Your task to perform on an android device: open app "Gmail" Image 0: 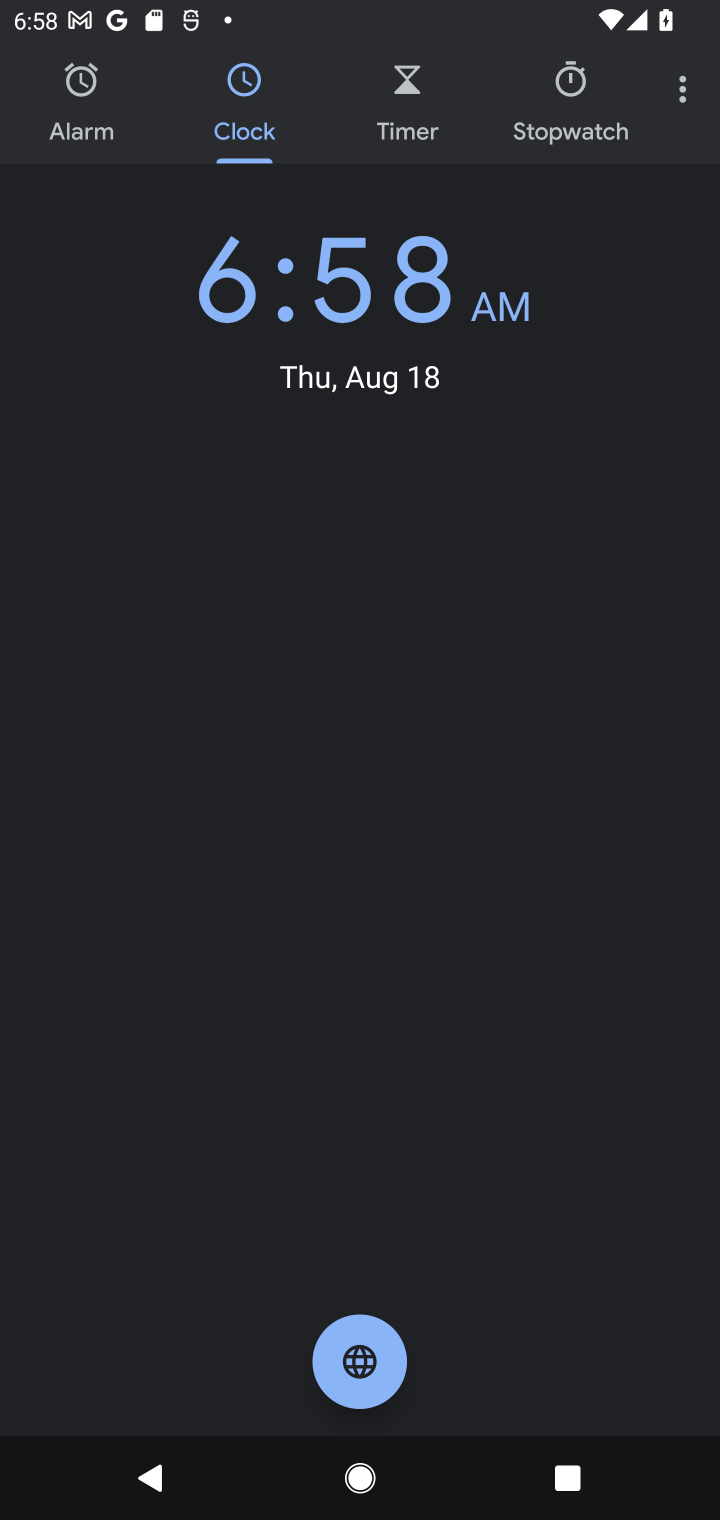
Step 0: press home button
Your task to perform on an android device: open app "Gmail" Image 1: 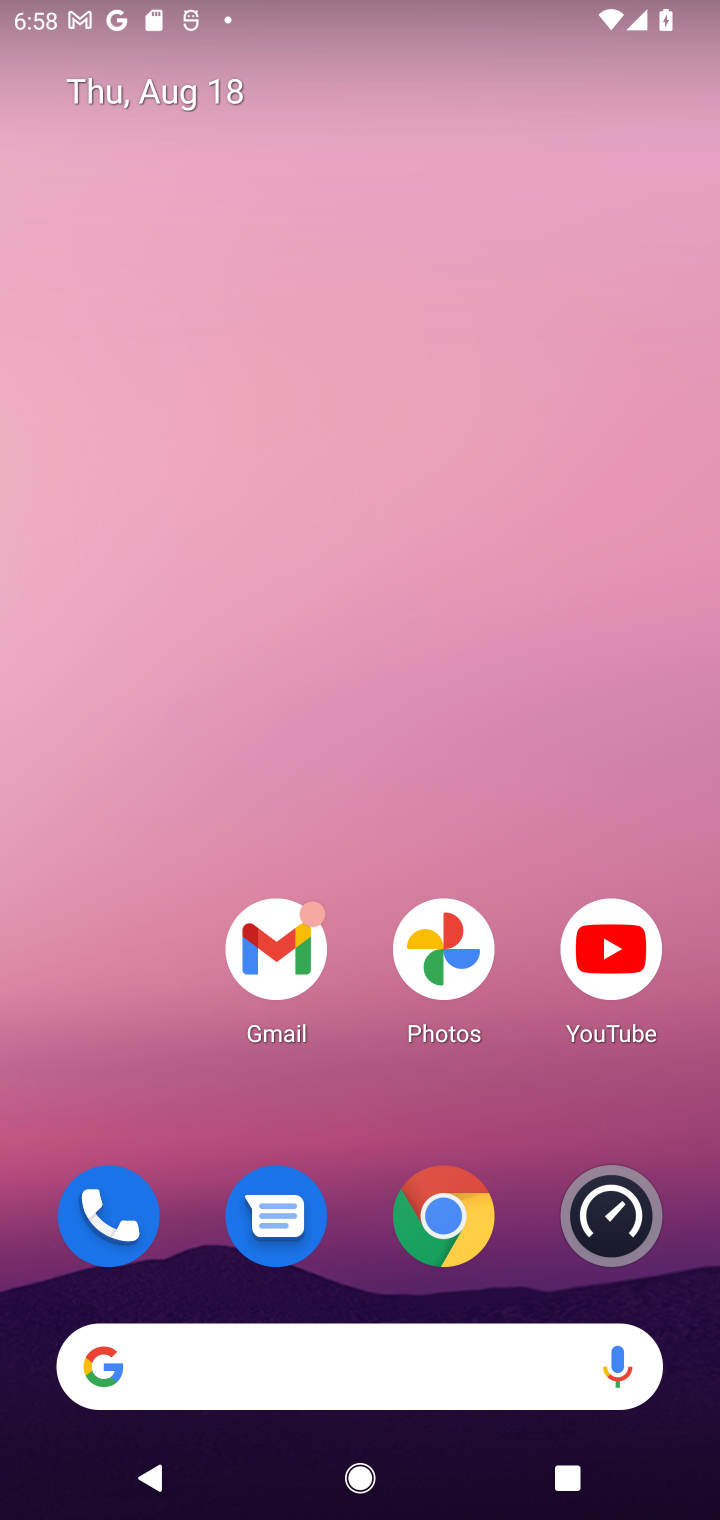
Step 1: drag from (535, 1273) to (499, 208)
Your task to perform on an android device: open app "Gmail" Image 2: 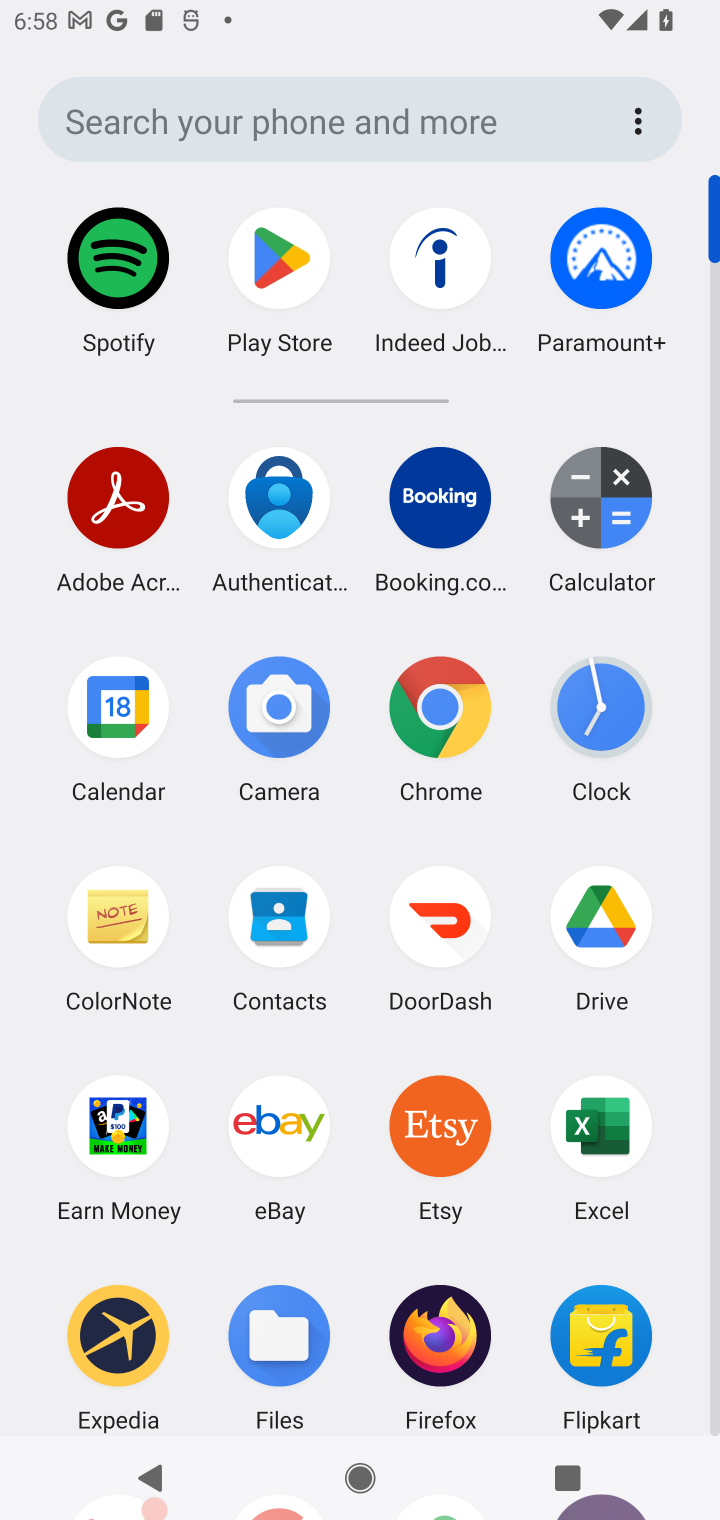
Step 2: drag from (522, 1262) to (522, 588)
Your task to perform on an android device: open app "Gmail" Image 3: 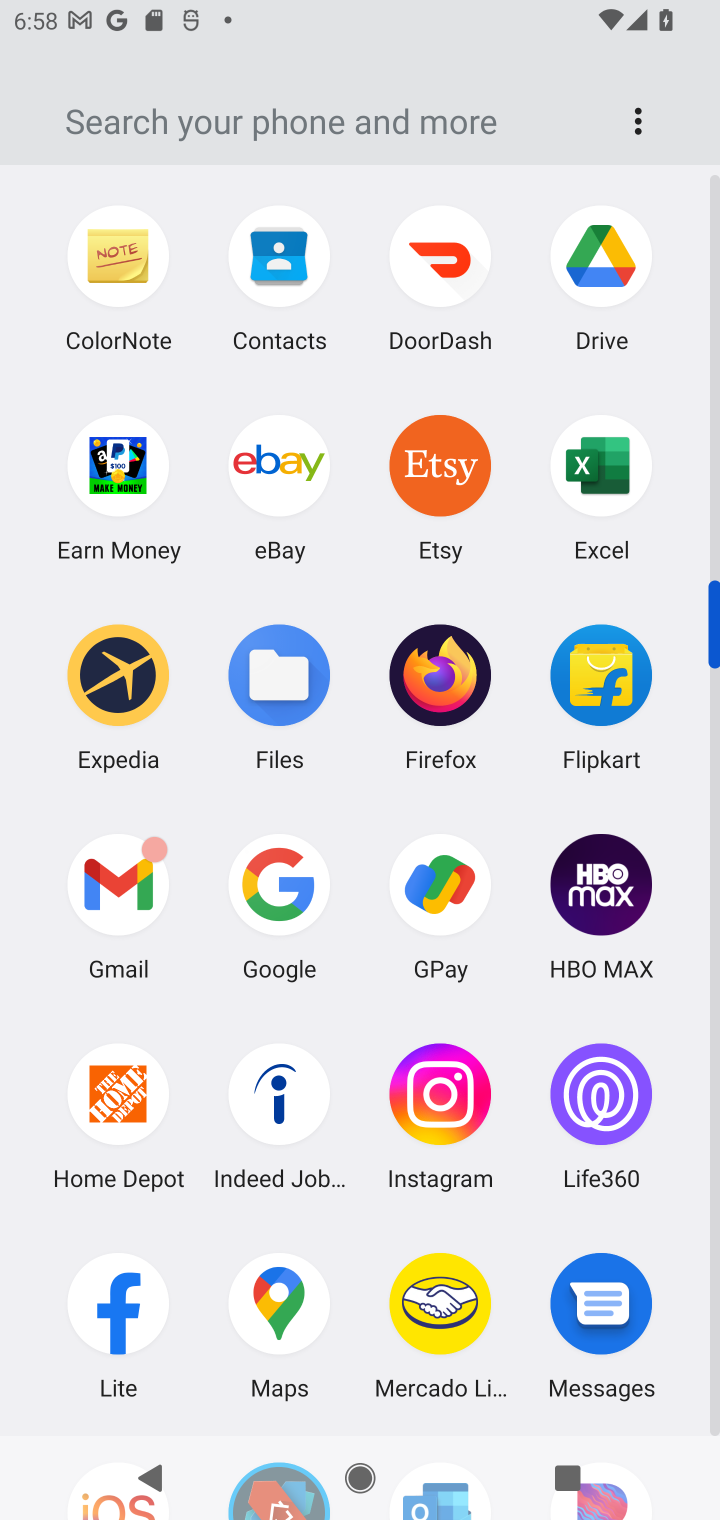
Step 3: drag from (524, 1219) to (531, 977)
Your task to perform on an android device: open app "Gmail" Image 4: 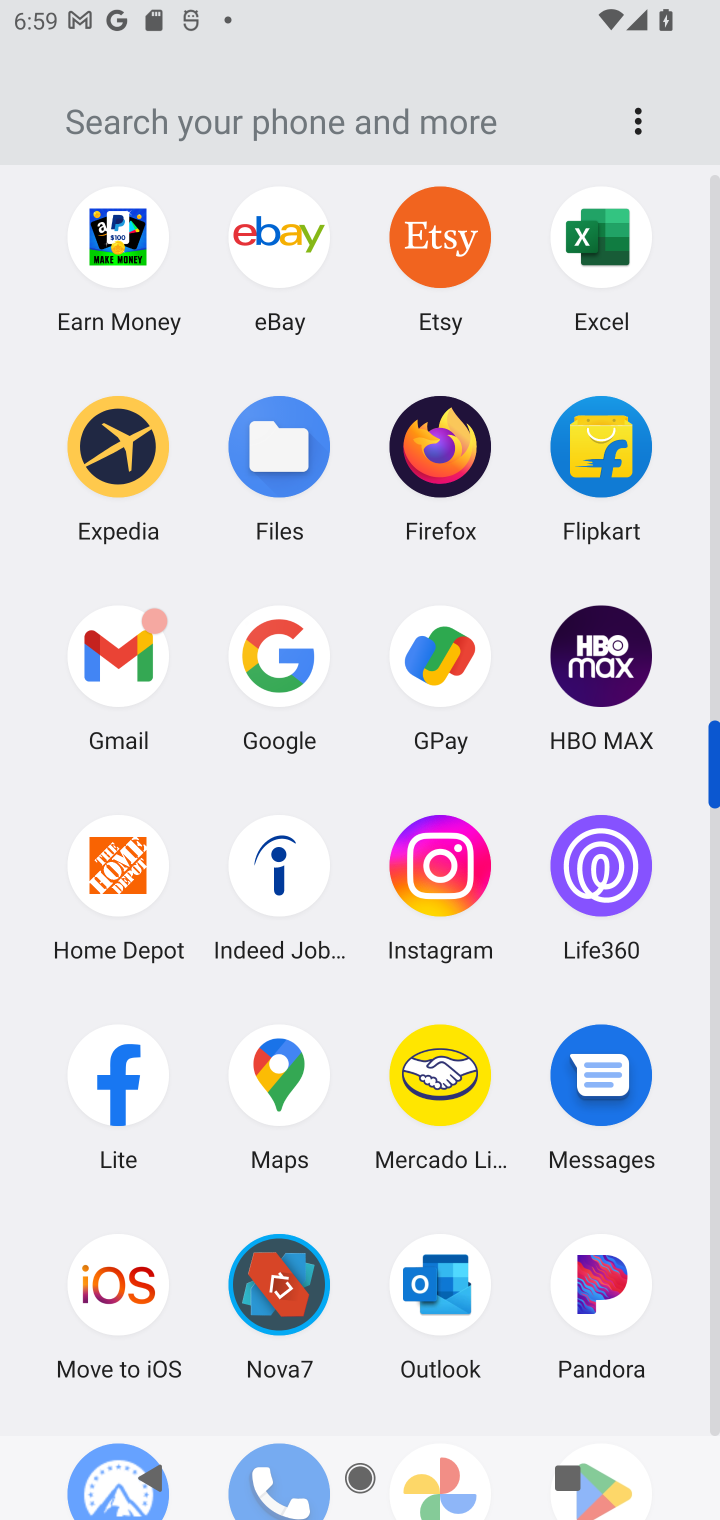
Step 4: click (122, 653)
Your task to perform on an android device: open app "Gmail" Image 5: 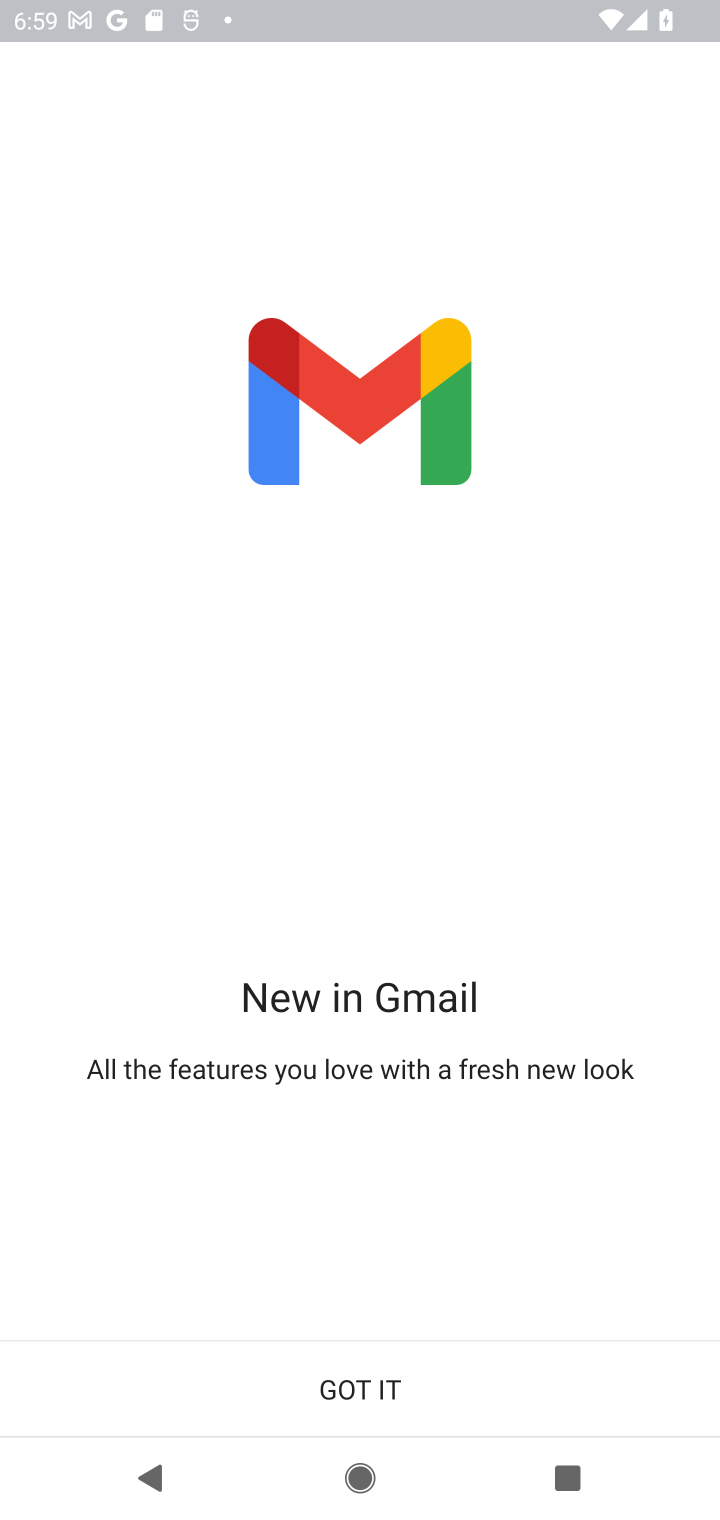
Step 5: click (361, 1384)
Your task to perform on an android device: open app "Gmail" Image 6: 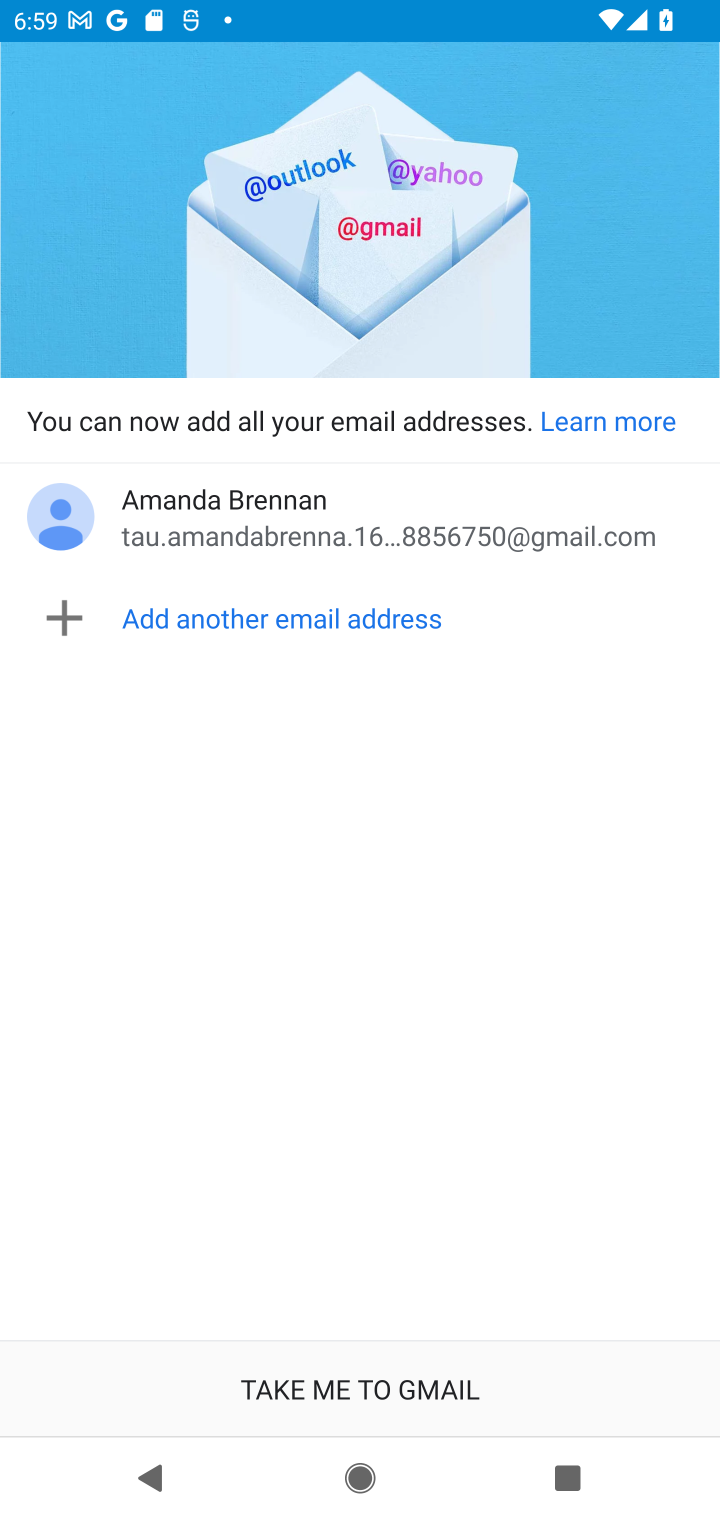
Step 6: click (315, 1378)
Your task to perform on an android device: open app "Gmail" Image 7: 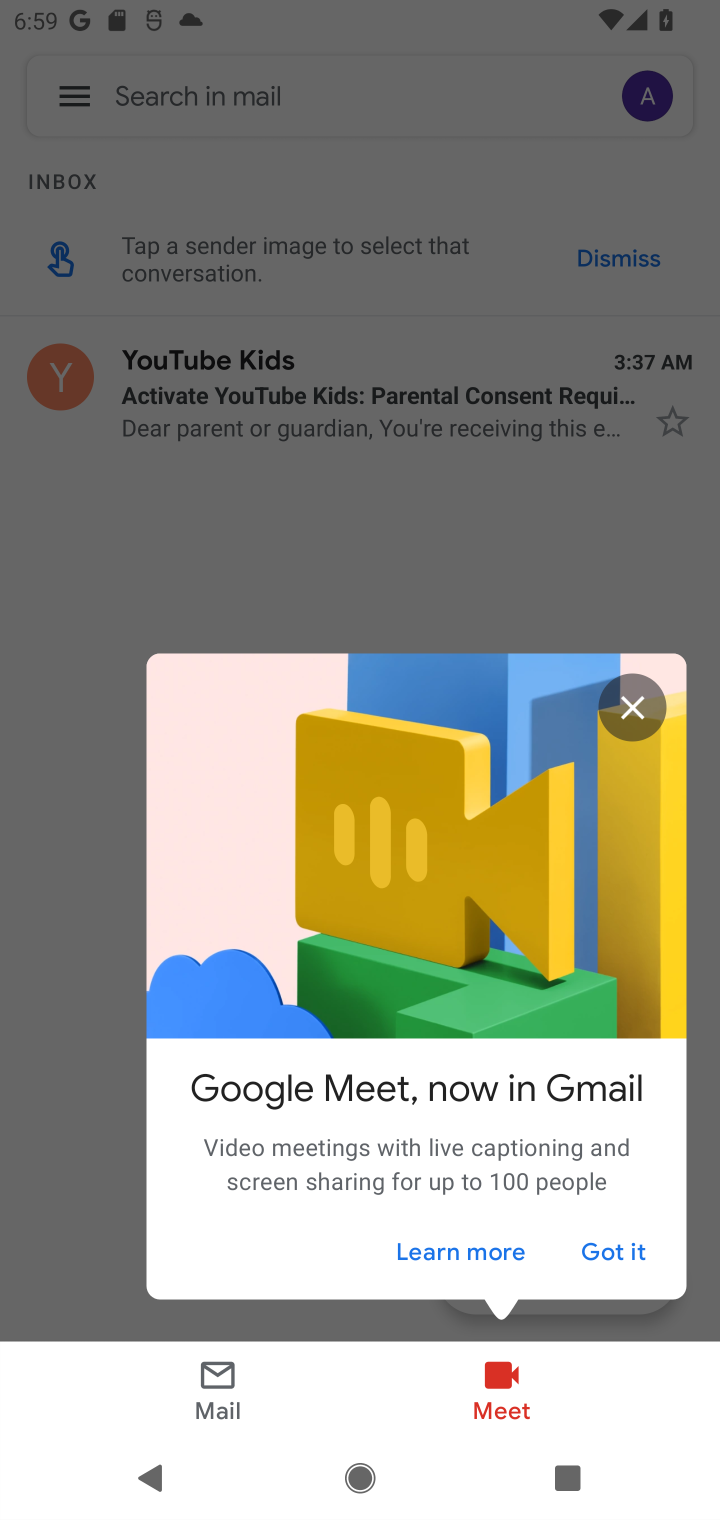
Step 7: task complete